Your task to perform on an android device: Do I have any events today? Image 0: 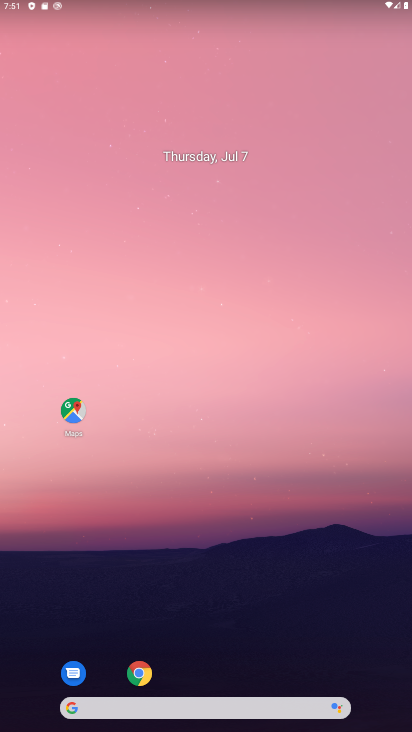
Step 0: drag from (198, 694) to (127, 78)
Your task to perform on an android device: Do I have any events today? Image 1: 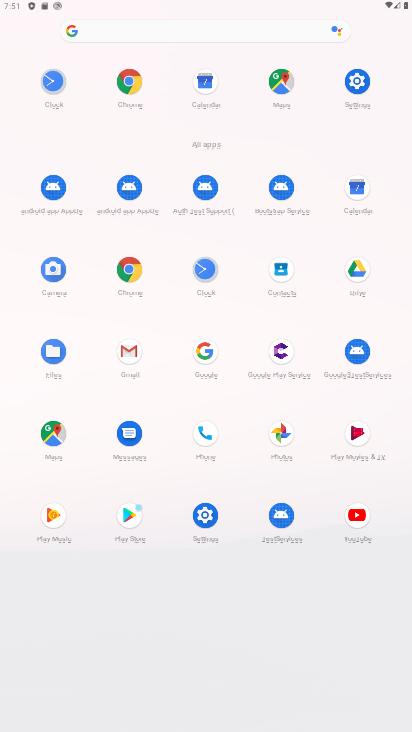
Step 1: click (354, 187)
Your task to perform on an android device: Do I have any events today? Image 2: 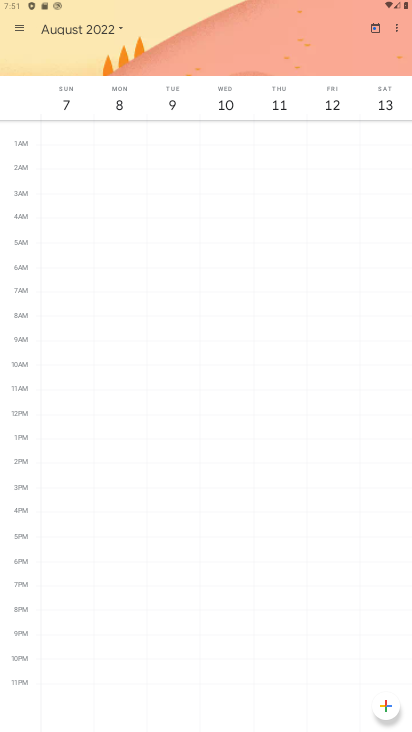
Step 2: click (373, 29)
Your task to perform on an android device: Do I have any events today? Image 3: 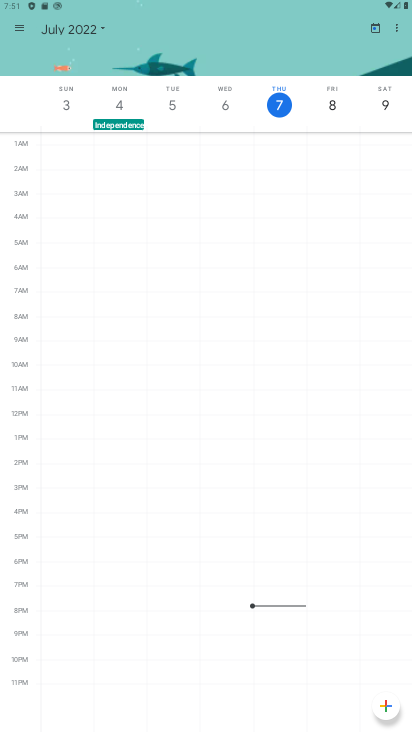
Step 3: click (271, 99)
Your task to perform on an android device: Do I have any events today? Image 4: 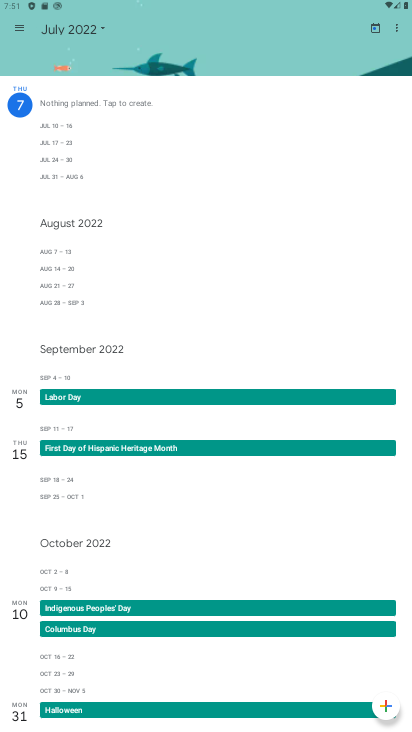
Step 4: task complete